Your task to perform on an android device: Clear the shopping cart on newegg.com. Add "dell xps" to the cart on newegg.com, then select checkout. Image 0: 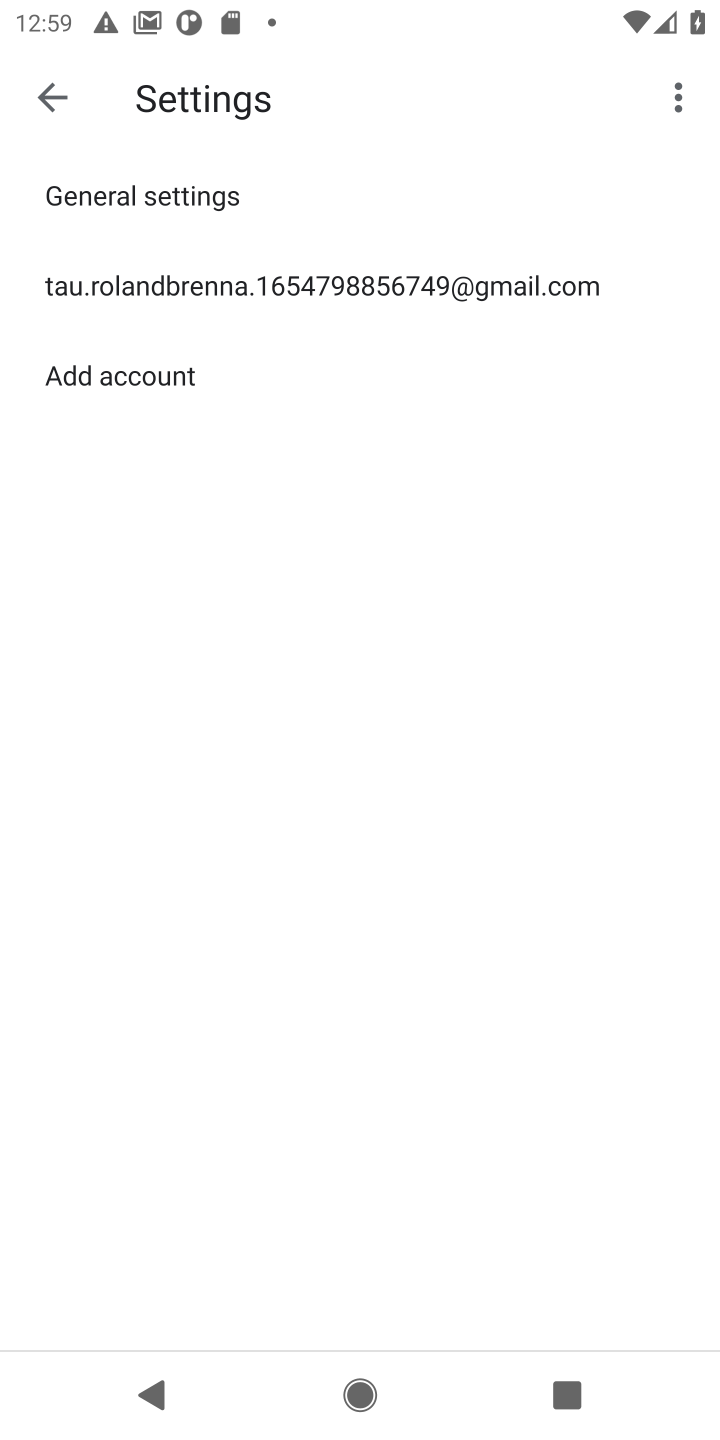
Step 0: press home button
Your task to perform on an android device: Clear the shopping cart on newegg.com. Add "dell xps" to the cart on newegg.com, then select checkout. Image 1: 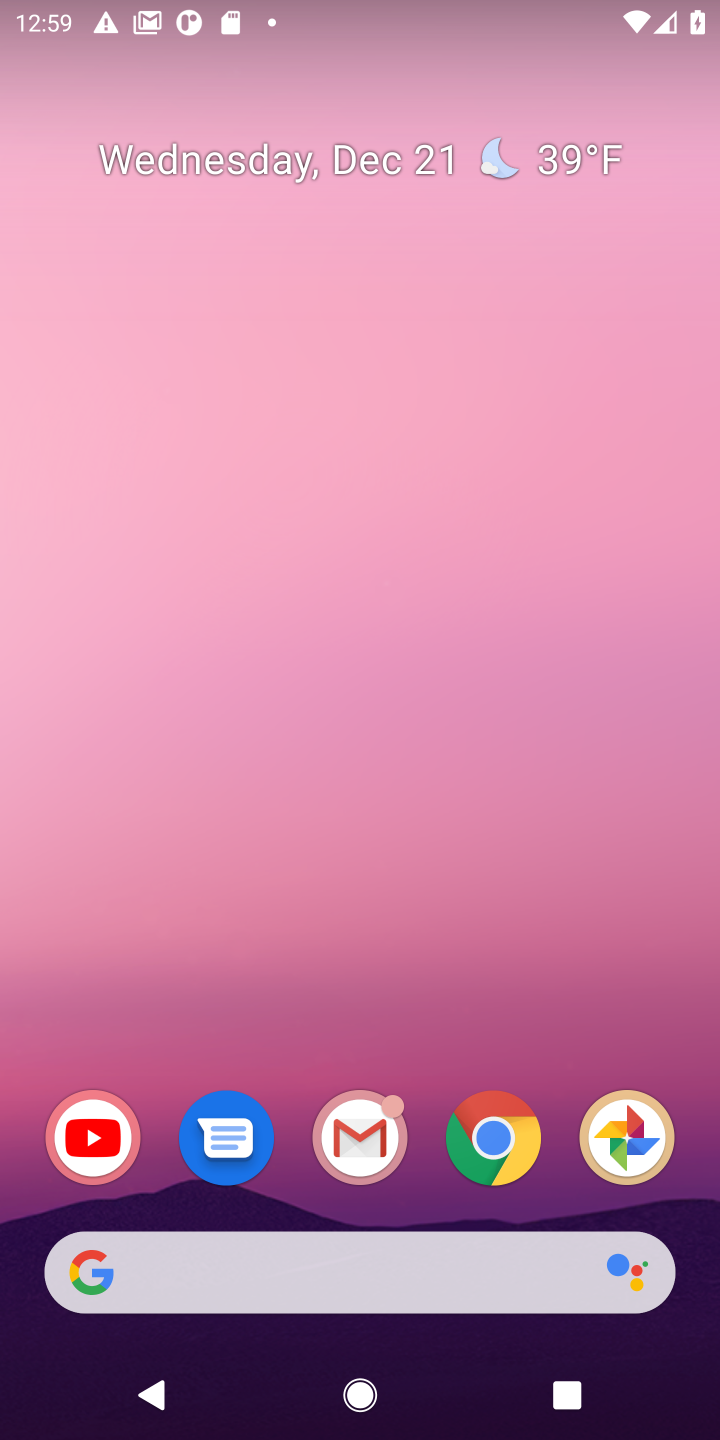
Step 1: click (490, 1162)
Your task to perform on an android device: Clear the shopping cart on newegg.com. Add "dell xps" to the cart on newegg.com, then select checkout. Image 2: 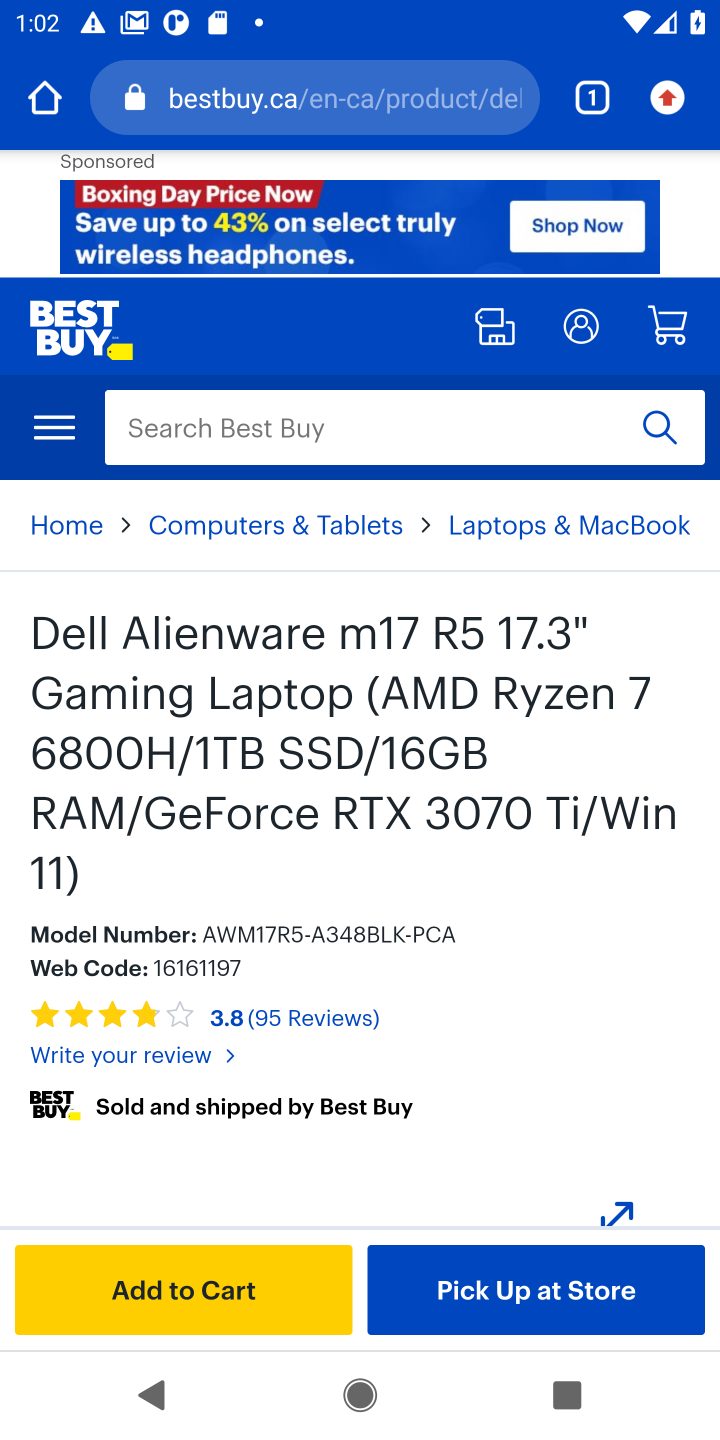
Step 2: click (210, 111)
Your task to perform on an android device: Clear the shopping cart on newegg.com. Add "dell xps" to the cart on newegg.com, then select checkout. Image 3: 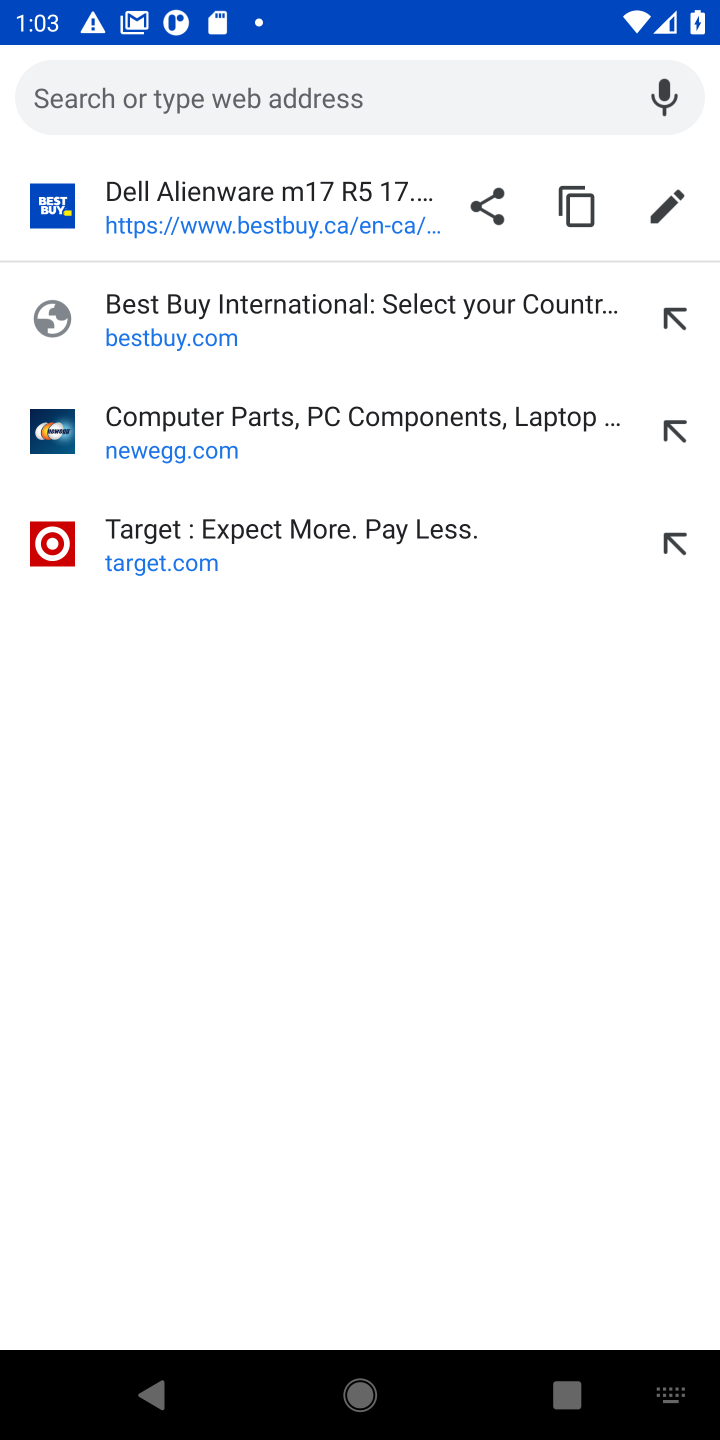
Step 3: type "newegg"
Your task to perform on an android device: Clear the shopping cart on newegg.com. Add "dell xps" to the cart on newegg.com, then select checkout. Image 4: 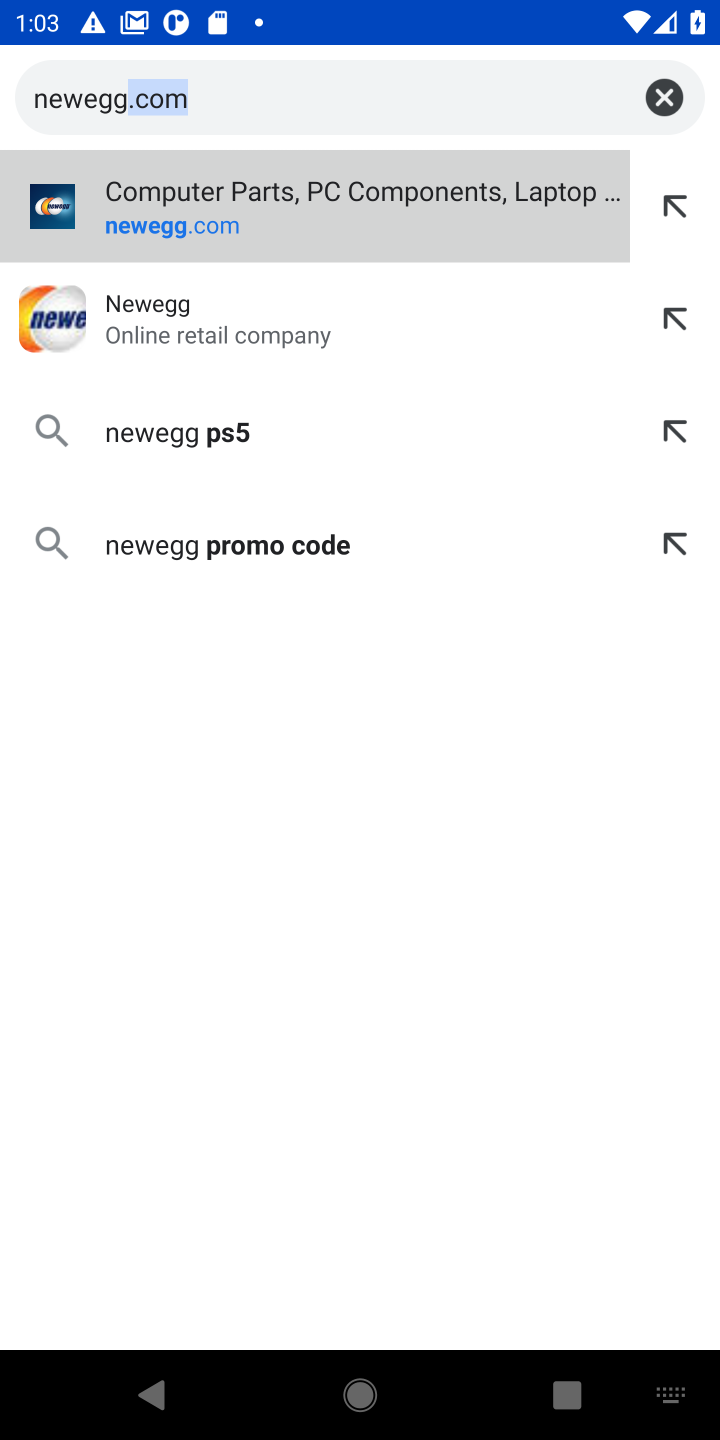
Step 4: click (294, 245)
Your task to perform on an android device: Clear the shopping cart on newegg.com. Add "dell xps" to the cart on newegg.com, then select checkout. Image 5: 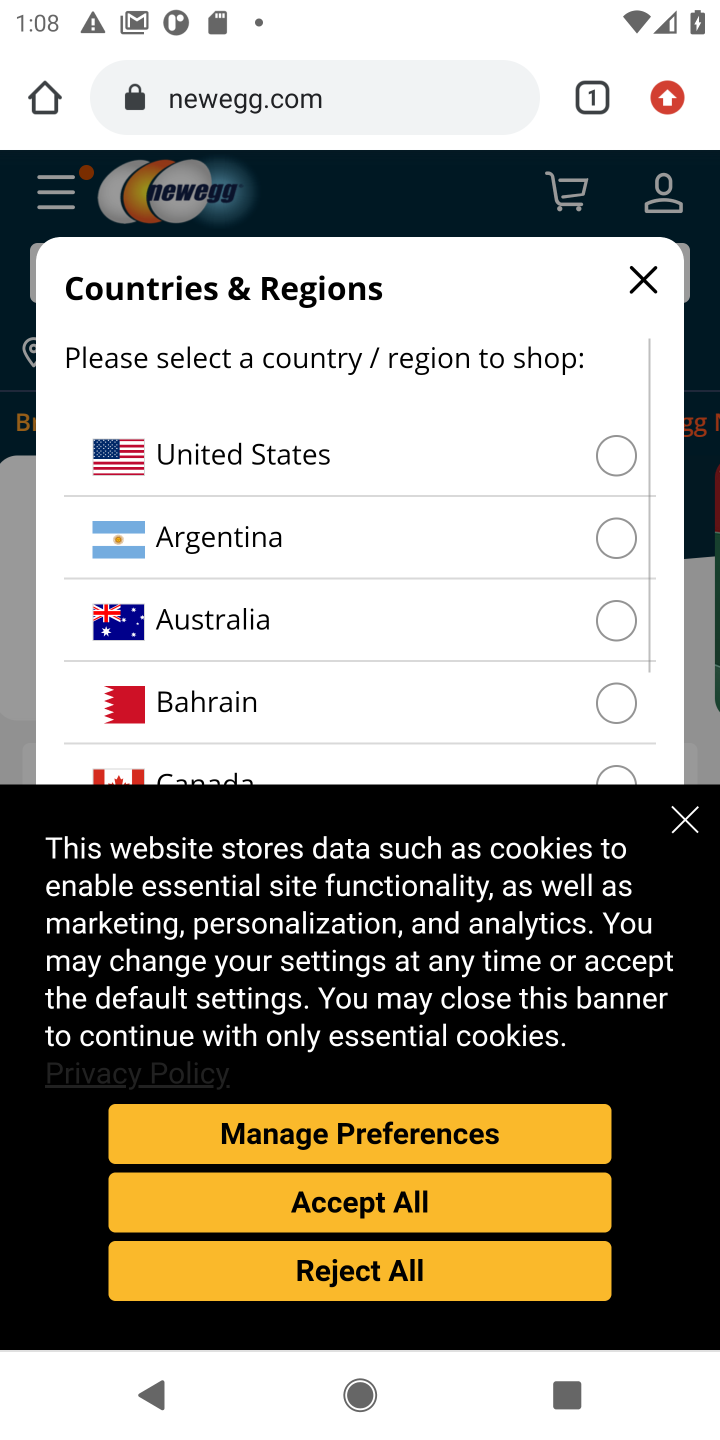
Step 5: task complete